Your task to perform on an android device: Open Google Chrome and open the bookmarks view Image 0: 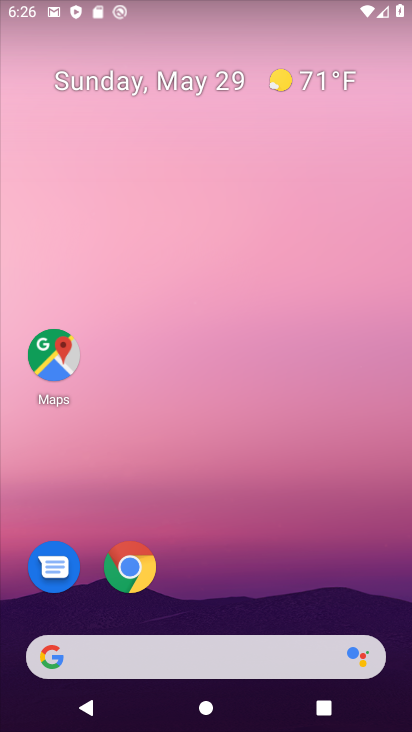
Step 0: drag from (380, 589) to (266, 90)
Your task to perform on an android device: Open Google Chrome and open the bookmarks view Image 1: 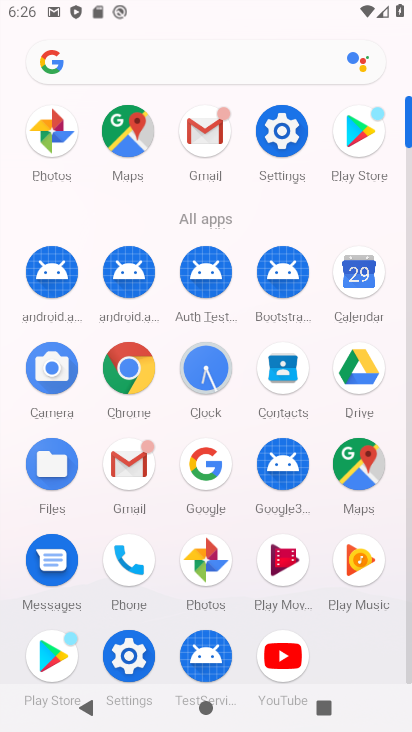
Step 1: click (123, 365)
Your task to perform on an android device: Open Google Chrome and open the bookmarks view Image 2: 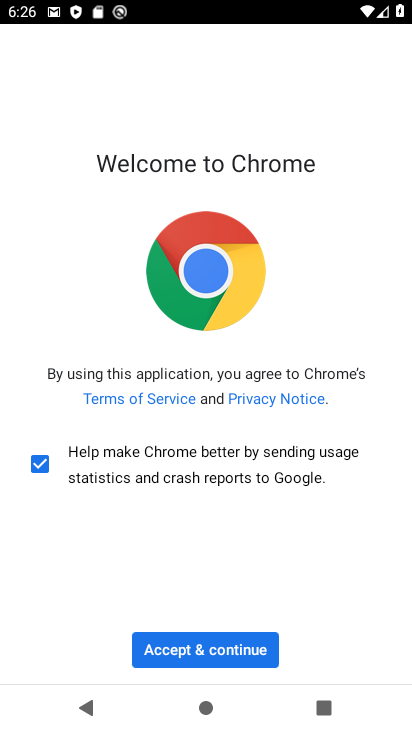
Step 2: click (213, 645)
Your task to perform on an android device: Open Google Chrome and open the bookmarks view Image 3: 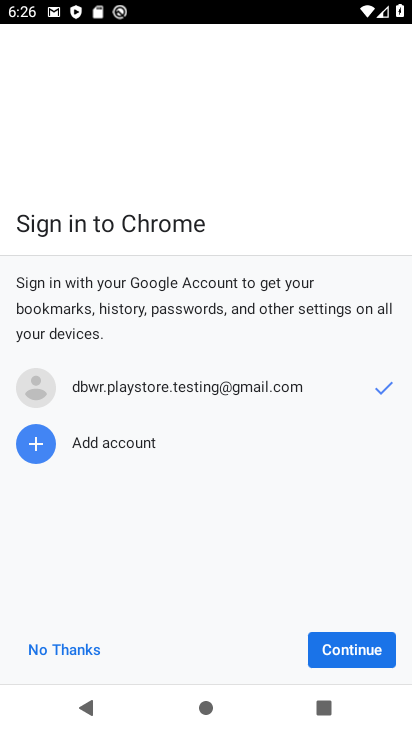
Step 3: click (384, 658)
Your task to perform on an android device: Open Google Chrome and open the bookmarks view Image 4: 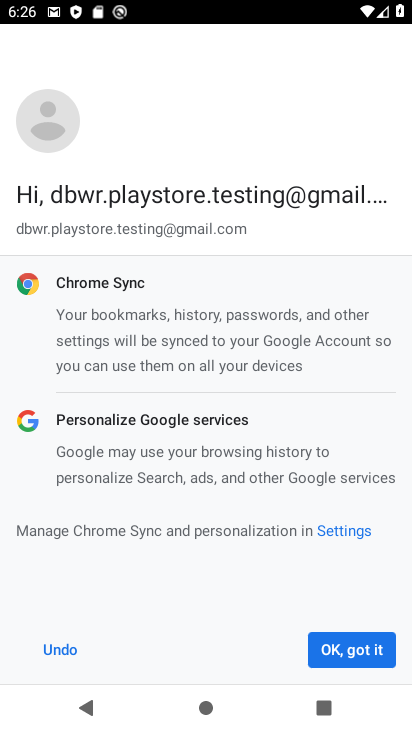
Step 4: click (384, 658)
Your task to perform on an android device: Open Google Chrome and open the bookmarks view Image 5: 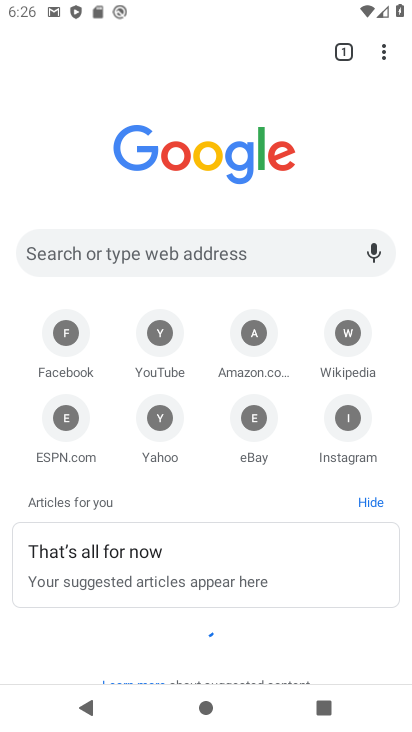
Step 5: click (392, 45)
Your task to perform on an android device: Open Google Chrome and open the bookmarks view Image 6: 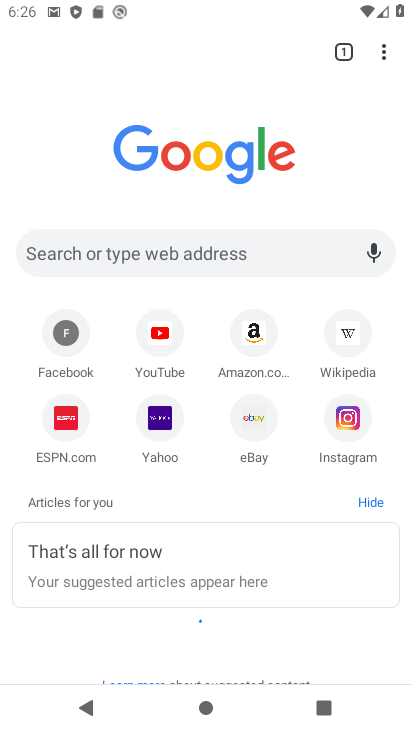
Step 6: click (383, 43)
Your task to perform on an android device: Open Google Chrome and open the bookmarks view Image 7: 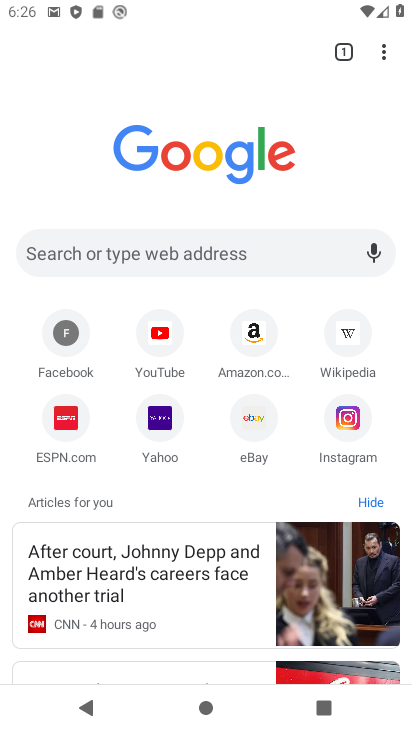
Step 7: click (382, 43)
Your task to perform on an android device: Open Google Chrome and open the bookmarks view Image 8: 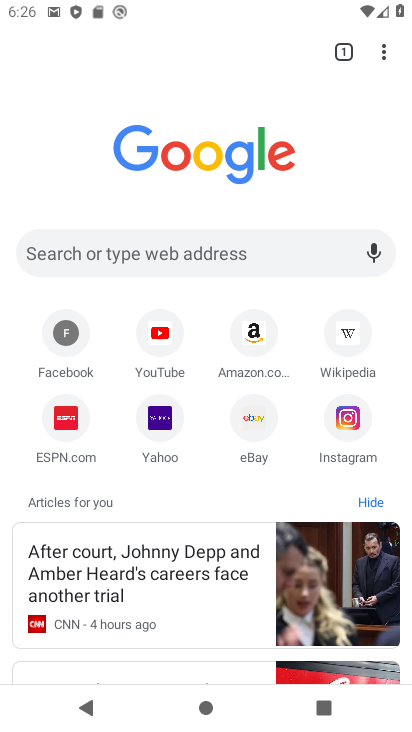
Step 8: click (381, 45)
Your task to perform on an android device: Open Google Chrome and open the bookmarks view Image 9: 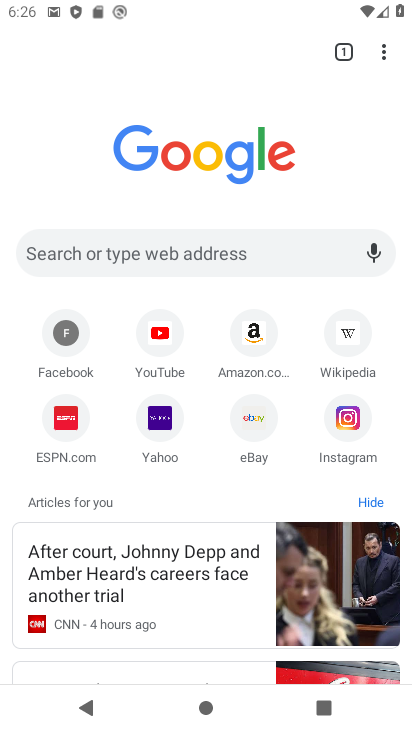
Step 9: click (381, 45)
Your task to perform on an android device: Open Google Chrome and open the bookmarks view Image 10: 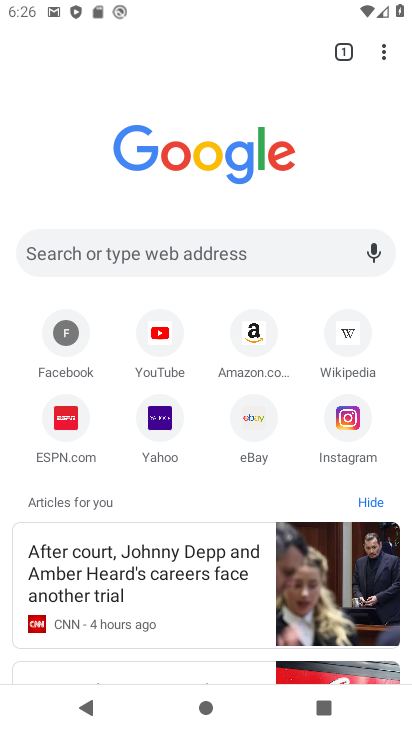
Step 10: click (387, 53)
Your task to perform on an android device: Open Google Chrome and open the bookmarks view Image 11: 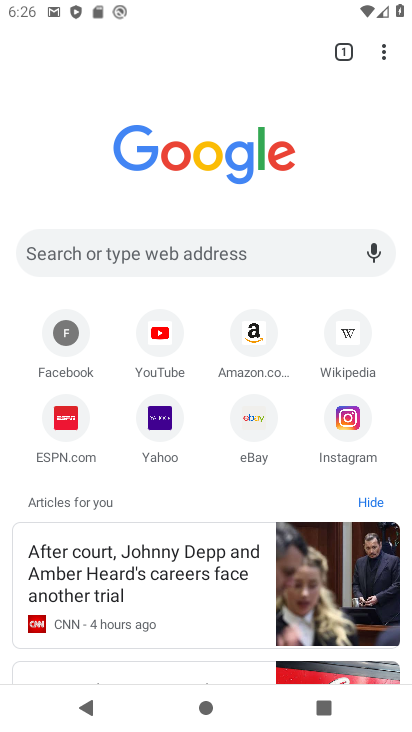
Step 11: click (385, 53)
Your task to perform on an android device: Open Google Chrome and open the bookmarks view Image 12: 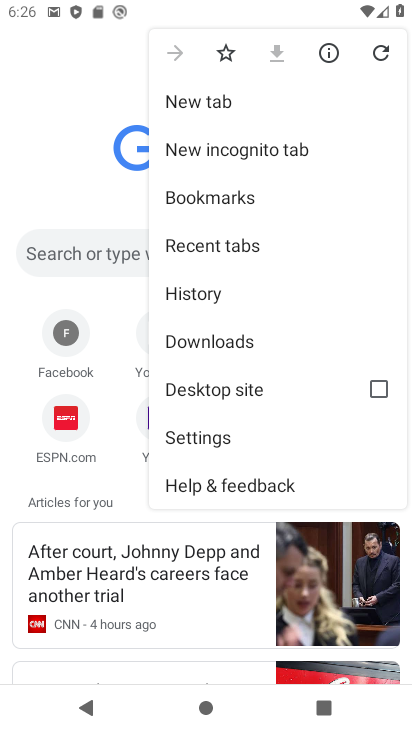
Step 12: click (208, 207)
Your task to perform on an android device: Open Google Chrome and open the bookmarks view Image 13: 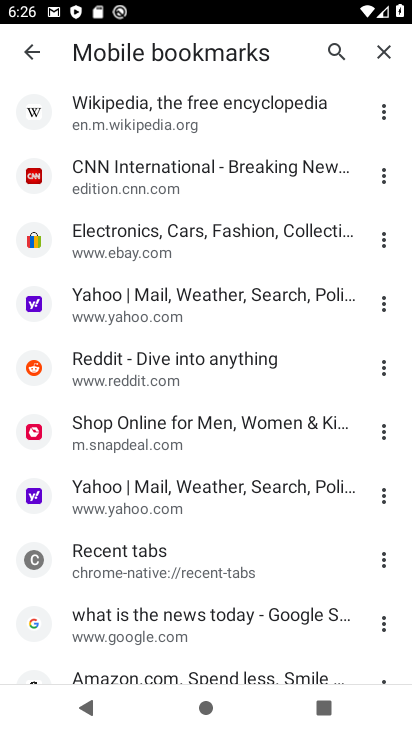
Step 13: task complete